Your task to perform on an android device: Play the last video I watched on Youtube Image 0: 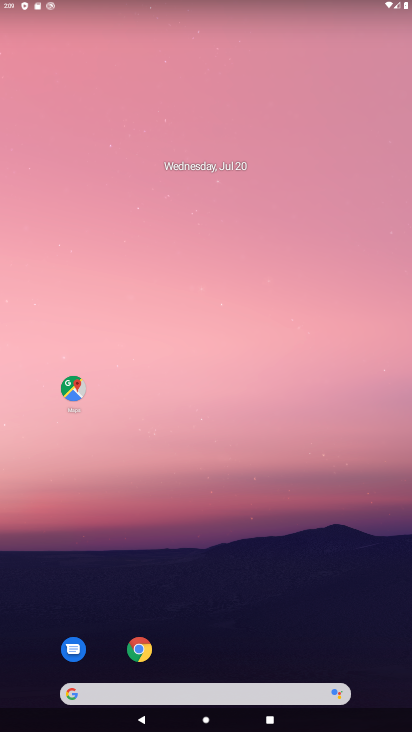
Step 0: drag from (198, 552) to (288, 10)
Your task to perform on an android device: Play the last video I watched on Youtube Image 1: 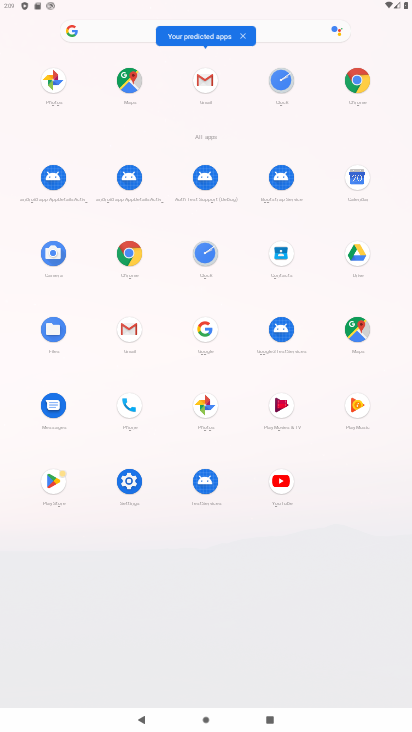
Step 1: click (285, 485)
Your task to perform on an android device: Play the last video I watched on Youtube Image 2: 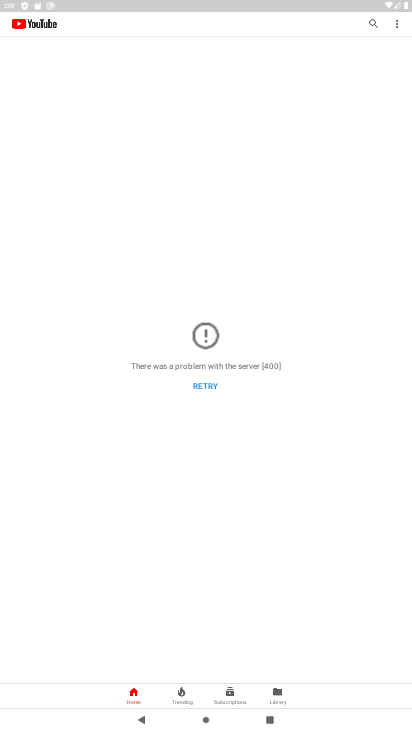
Step 2: click (207, 380)
Your task to perform on an android device: Play the last video I watched on Youtube Image 3: 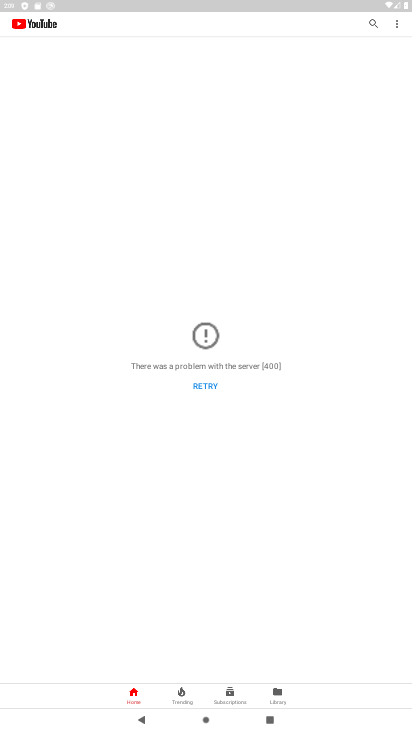
Step 3: click (212, 386)
Your task to perform on an android device: Play the last video I watched on Youtube Image 4: 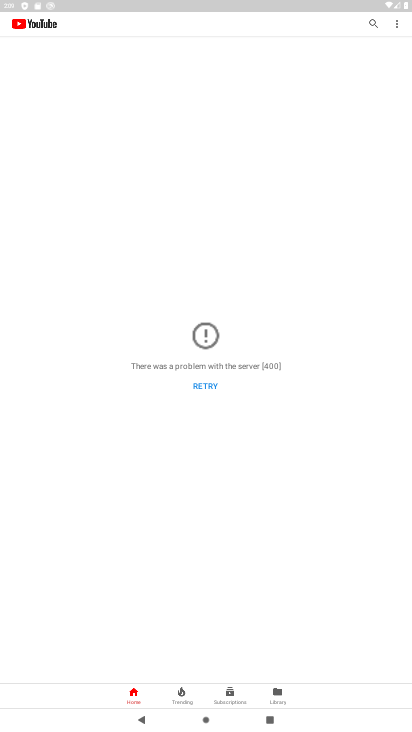
Step 4: click (276, 692)
Your task to perform on an android device: Play the last video I watched on Youtube Image 5: 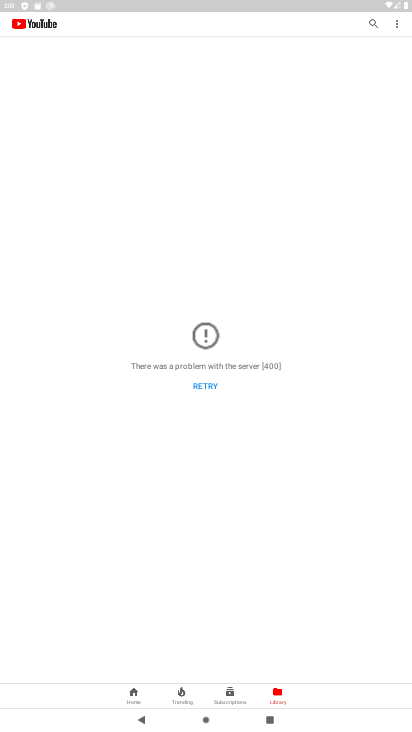
Step 5: click (203, 383)
Your task to perform on an android device: Play the last video I watched on Youtube Image 6: 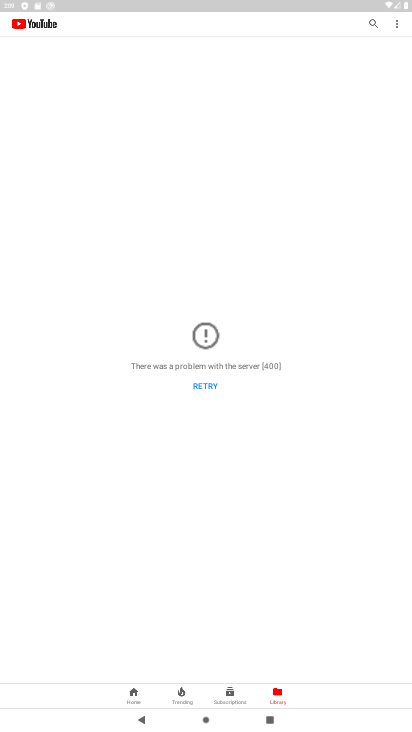
Step 6: click (203, 383)
Your task to perform on an android device: Play the last video I watched on Youtube Image 7: 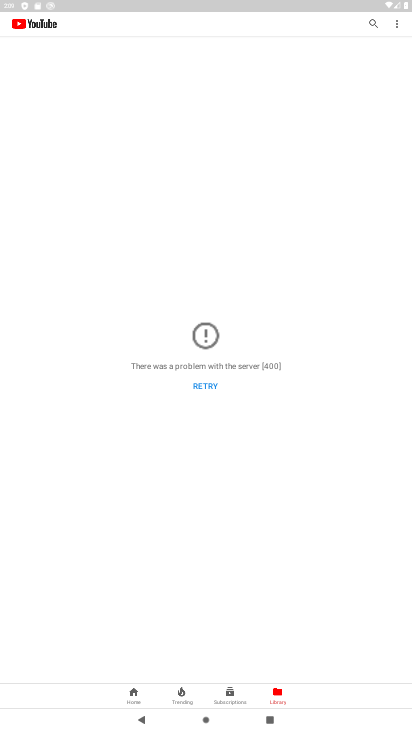
Step 7: click (205, 383)
Your task to perform on an android device: Play the last video I watched on Youtube Image 8: 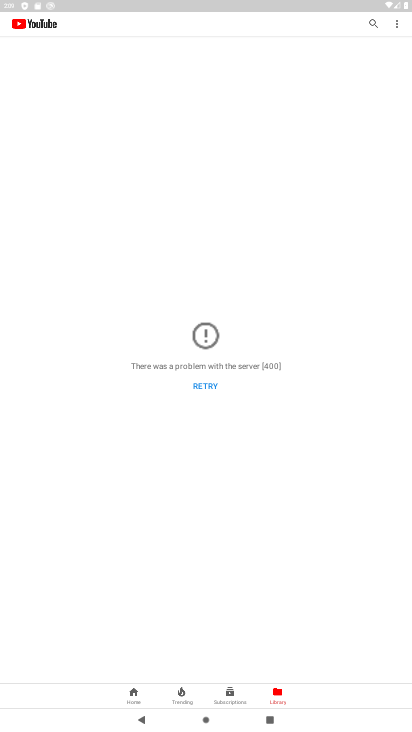
Step 8: click (205, 383)
Your task to perform on an android device: Play the last video I watched on Youtube Image 9: 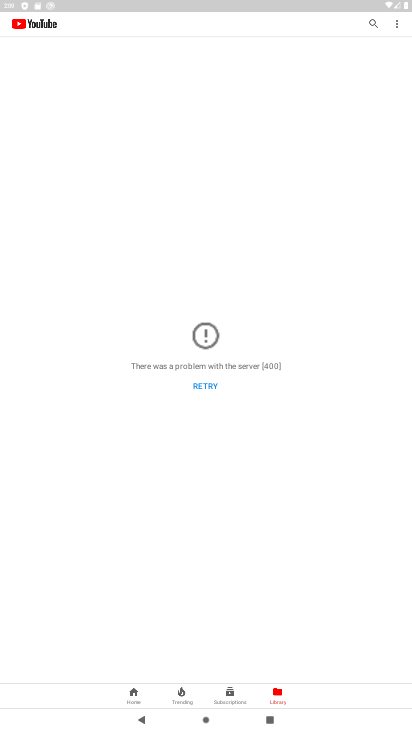
Step 9: click (205, 383)
Your task to perform on an android device: Play the last video I watched on Youtube Image 10: 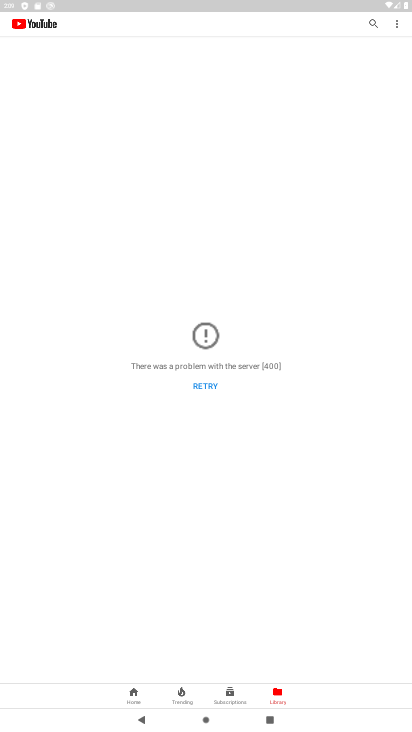
Step 10: click (205, 383)
Your task to perform on an android device: Play the last video I watched on Youtube Image 11: 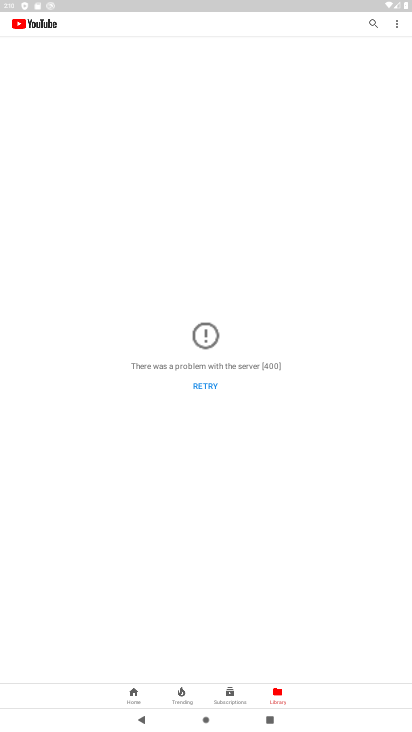
Step 11: task complete